Your task to perform on an android device: Show me popular games on the Play Store Image 0: 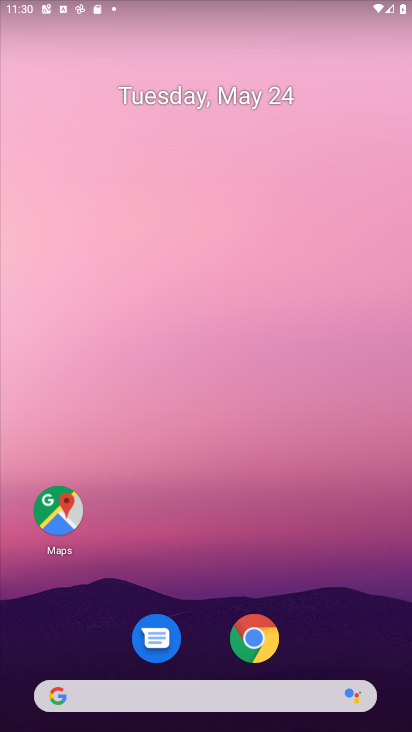
Step 0: drag from (227, 701) to (230, 12)
Your task to perform on an android device: Show me popular games on the Play Store Image 1: 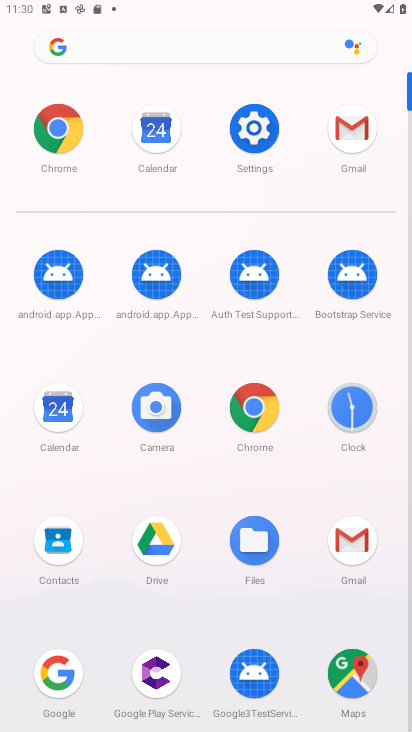
Step 1: drag from (253, 650) to (320, 34)
Your task to perform on an android device: Show me popular games on the Play Store Image 2: 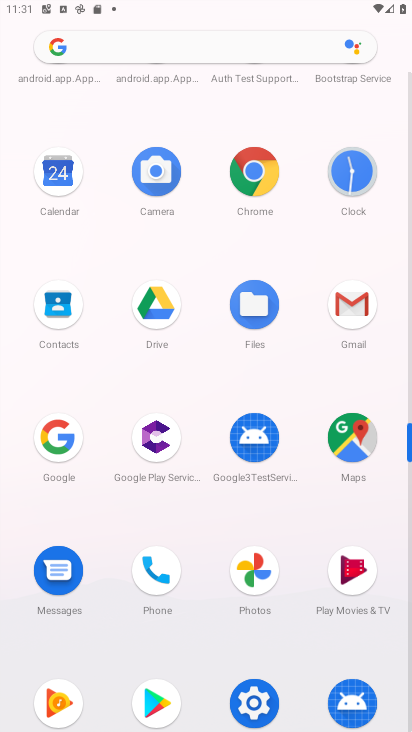
Step 2: click (151, 701)
Your task to perform on an android device: Show me popular games on the Play Store Image 3: 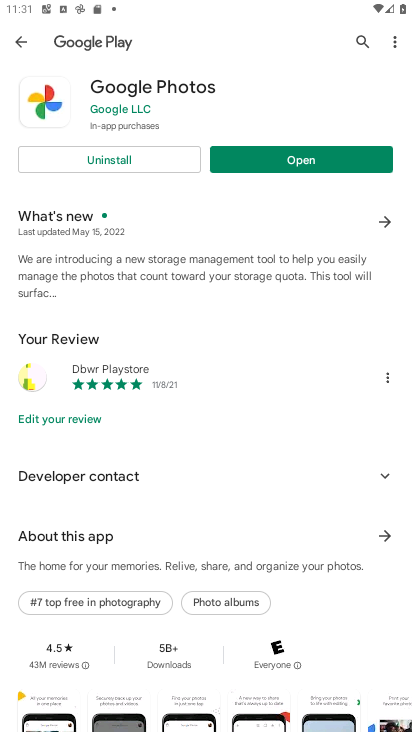
Step 3: click (23, 41)
Your task to perform on an android device: Show me popular games on the Play Store Image 4: 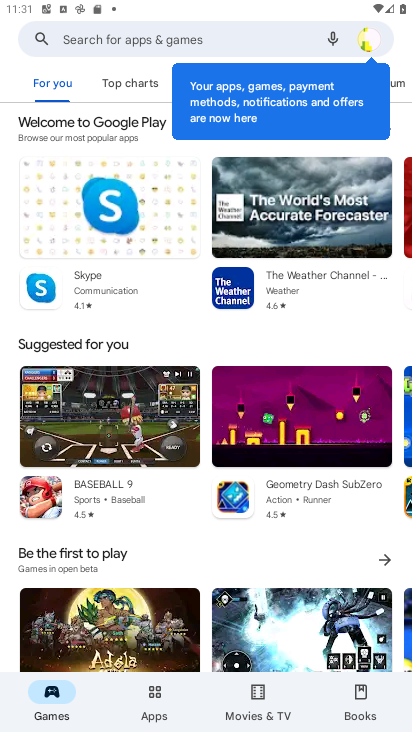
Step 4: task complete